Your task to perform on an android device: When is my next meeting? Image 0: 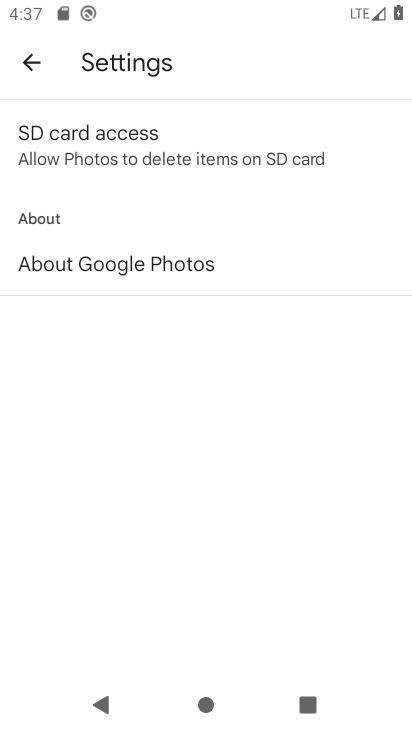
Step 0: press home button
Your task to perform on an android device: When is my next meeting? Image 1: 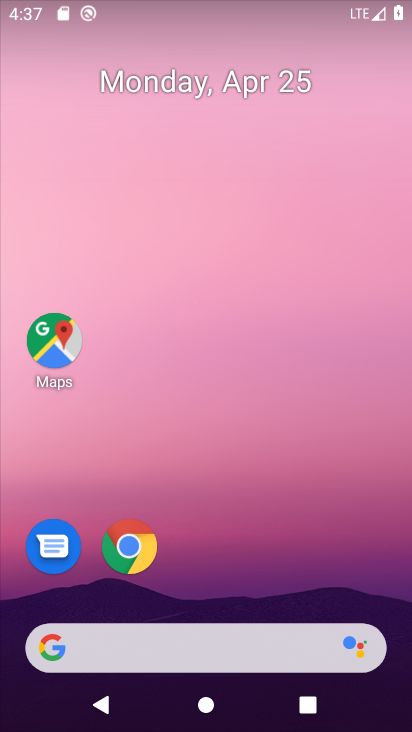
Step 1: drag from (237, 569) to (281, 24)
Your task to perform on an android device: When is my next meeting? Image 2: 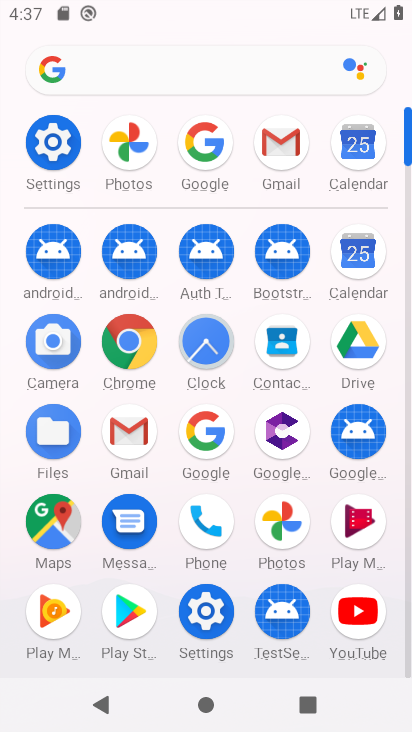
Step 2: click (382, 260)
Your task to perform on an android device: When is my next meeting? Image 3: 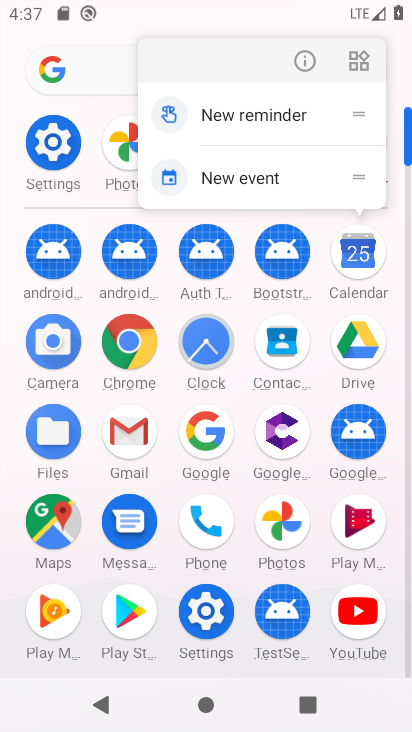
Step 3: click (374, 256)
Your task to perform on an android device: When is my next meeting? Image 4: 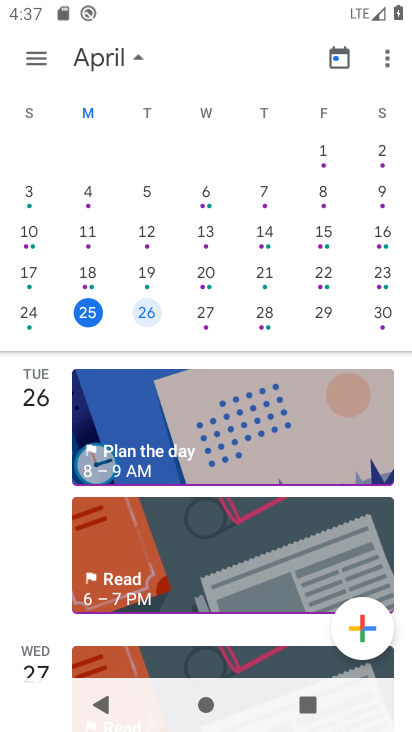
Step 4: click (133, 310)
Your task to perform on an android device: When is my next meeting? Image 5: 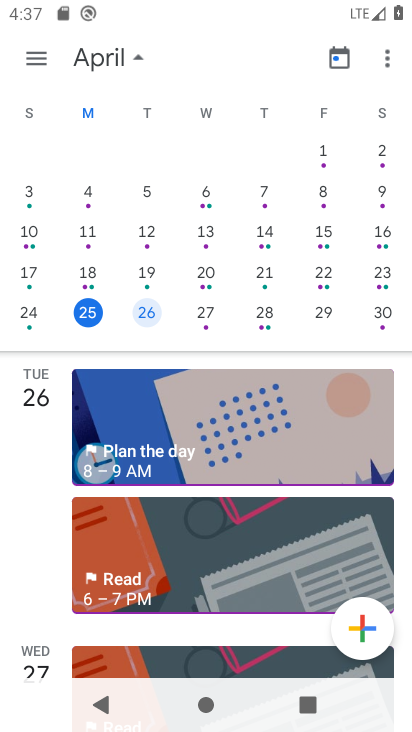
Step 5: click (83, 308)
Your task to perform on an android device: When is my next meeting? Image 6: 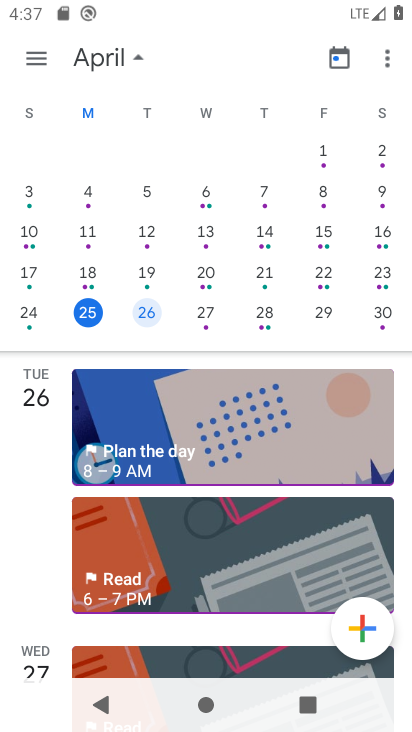
Step 6: click (92, 314)
Your task to perform on an android device: When is my next meeting? Image 7: 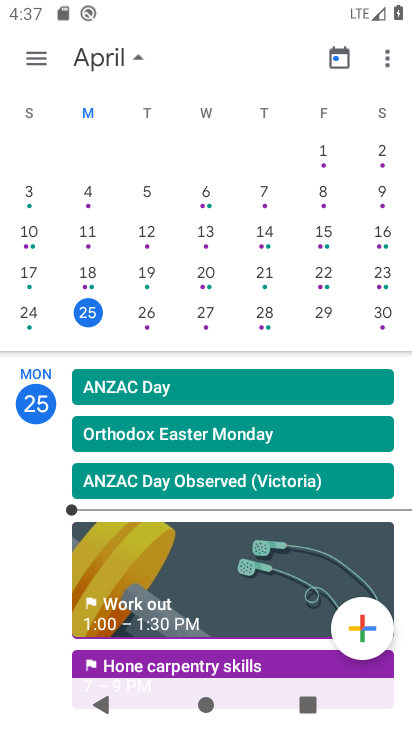
Step 7: task complete